Your task to perform on an android device: Open location settings Image 0: 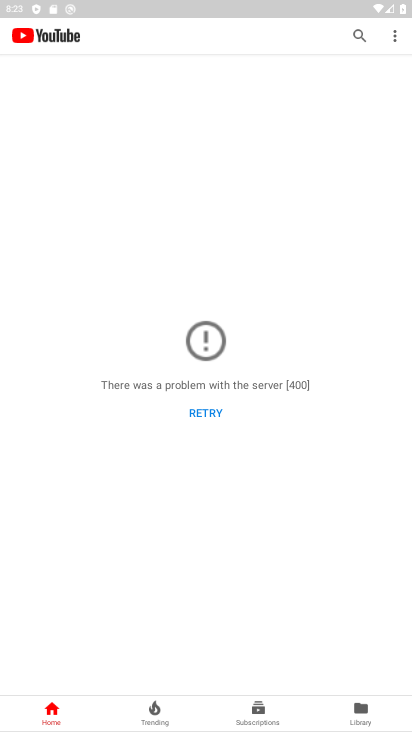
Step 0: press home button
Your task to perform on an android device: Open location settings Image 1: 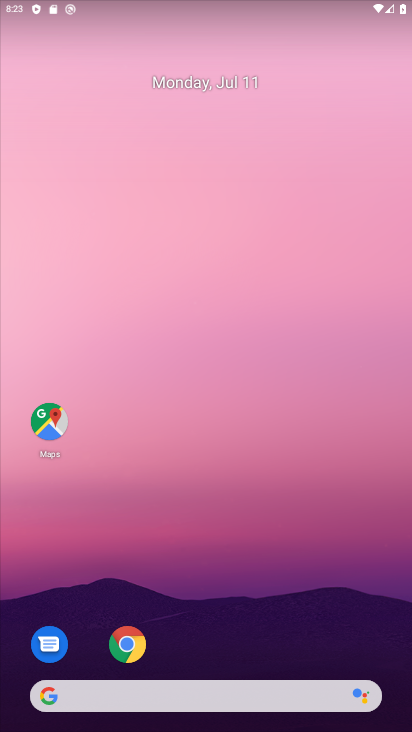
Step 1: drag from (209, 654) to (309, 57)
Your task to perform on an android device: Open location settings Image 2: 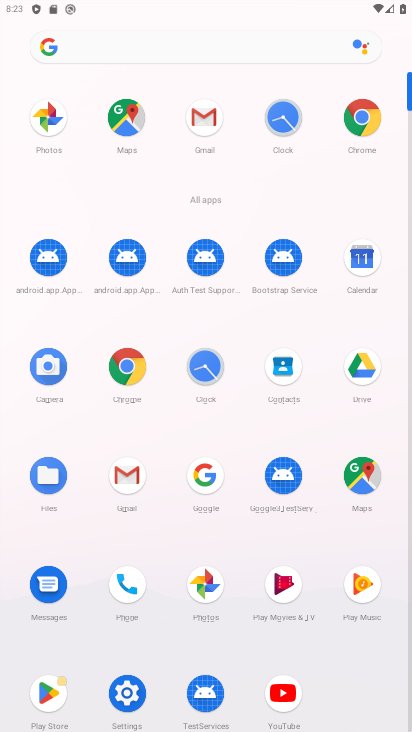
Step 2: click (114, 686)
Your task to perform on an android device: Open location settings Image 3: 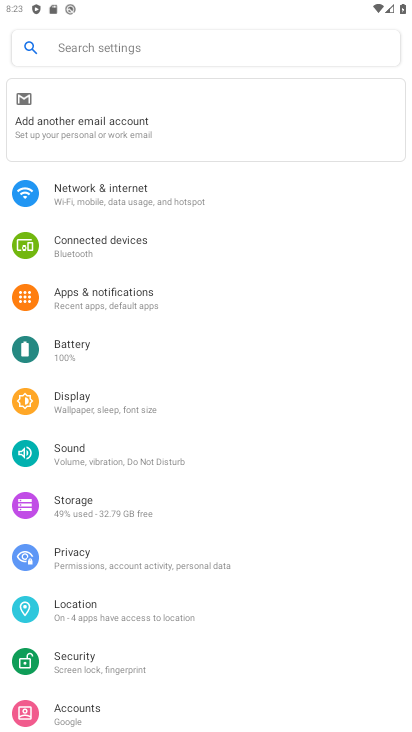
Step 3: drag from (134, 640) to (177, 431)
Your task to perform on an android device: Open location settings Image 4: 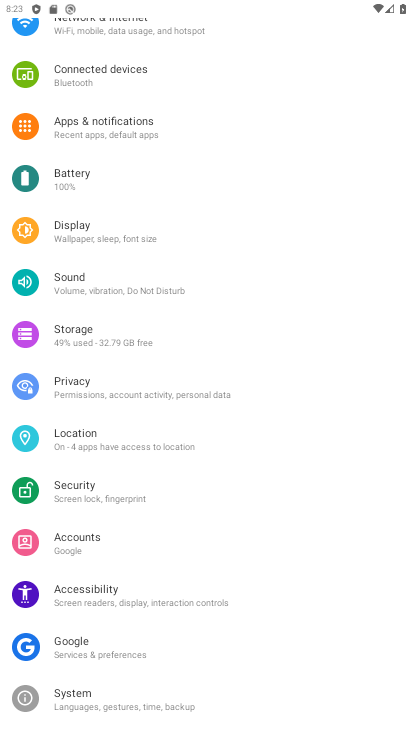
Step 4: click (115, 447)
Your task to perform on an android device: Open location settings Image 5: 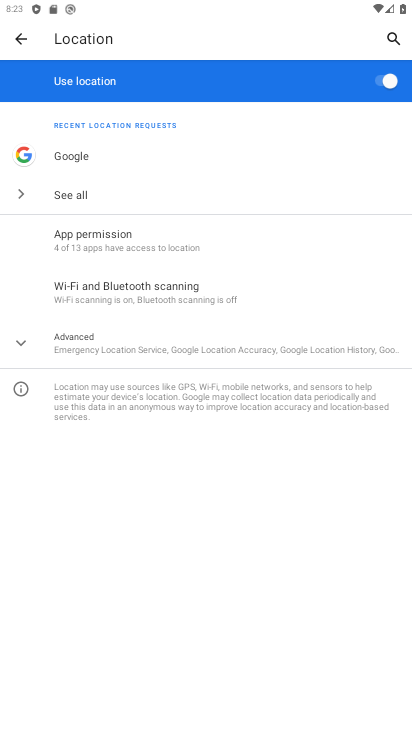
Step 5: task complete